Your task to perform on an android device: turn on airplane mode Image 0: 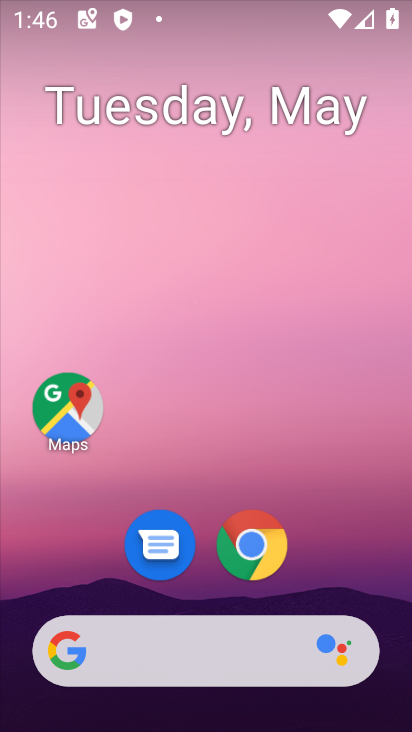
Step 0: drag from (401, 596) to (320, 89)
Your task to perform on an android device: turn on airplane mode Image 1: 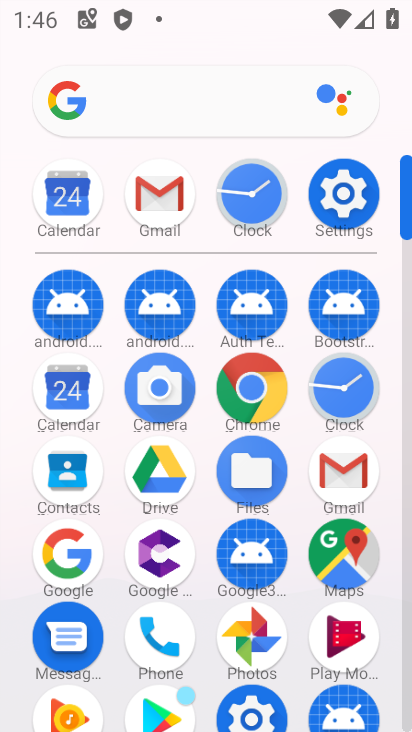
Step 1: click (407, 685)
Your task to perform on an android device: turn on airplane mode Image 2: 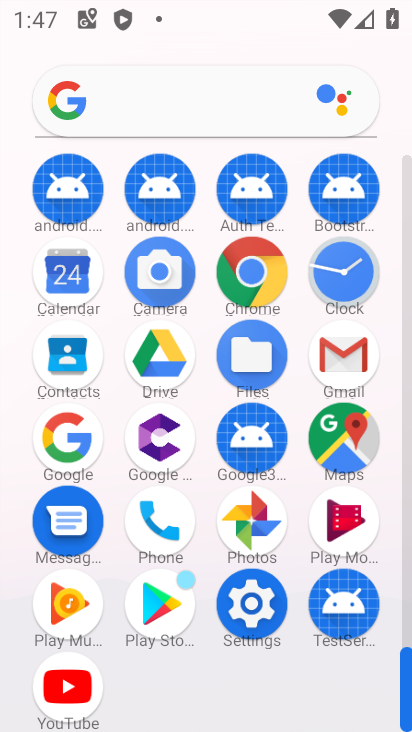
Step 2: click (253, 602)
Your task to perform on an android device: turn on airplane mode Image 3: 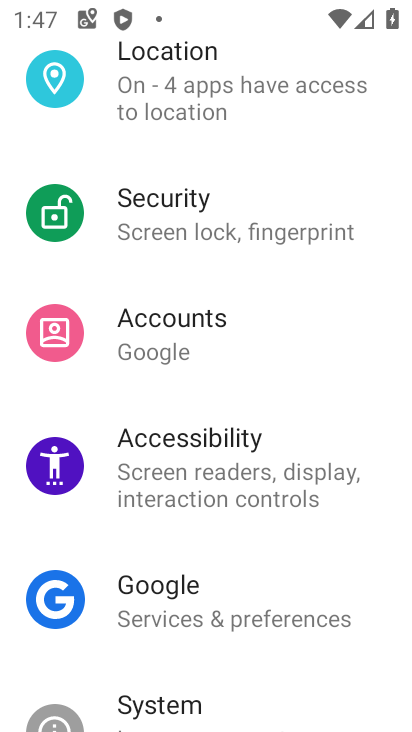
Step 3: drag from (354, 102) to (292, 636)
Your task to perform on an android device: turn on airplane mode Image 4: 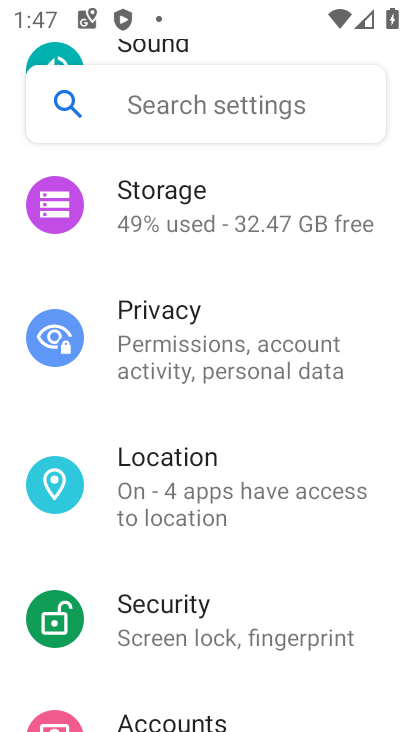
Step 4: drag from (350, 157) to (335, 463)
Your task to perform on an android device: turn on airplane mode Image 5: 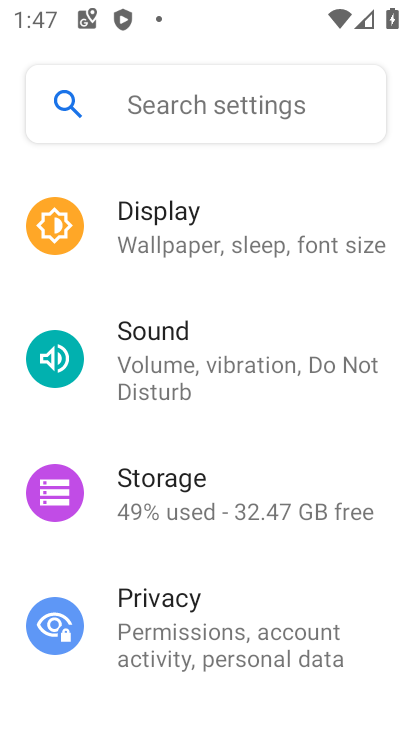
Step 5: drag from (318, 185) to (256, 596)
Your task to perform on an android device: turn on airplane mode Image 6: 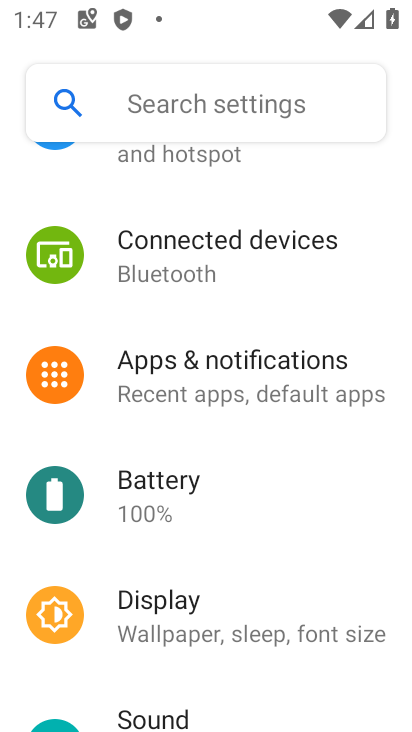
Step 6: drag from (331, 174) to (325, 466)
Your task to perform on an android device: turn on airplane mode Image 7: 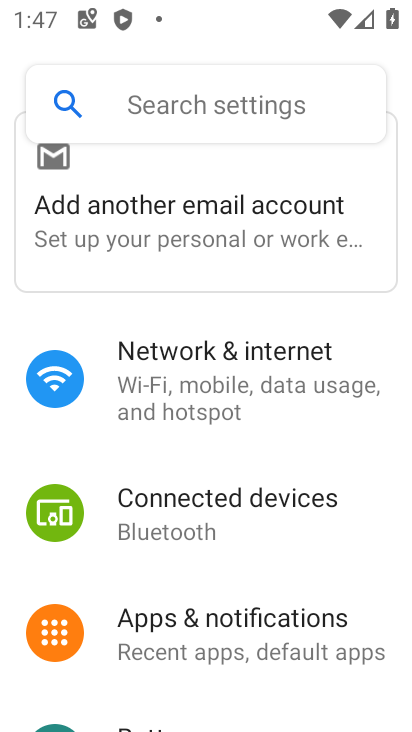
Step 7: click (178, 364)
Your task to perform on an android device: turn on airplane mode Image 8: 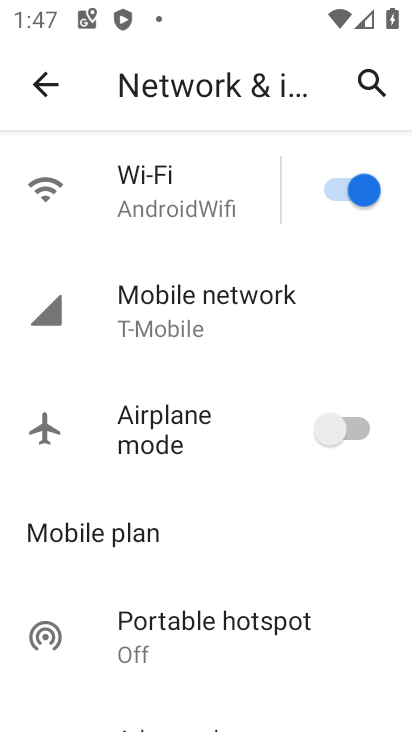
Step 8: click (371, 429)
Your task to perform on an android device: turn on airplane mode Image 9: 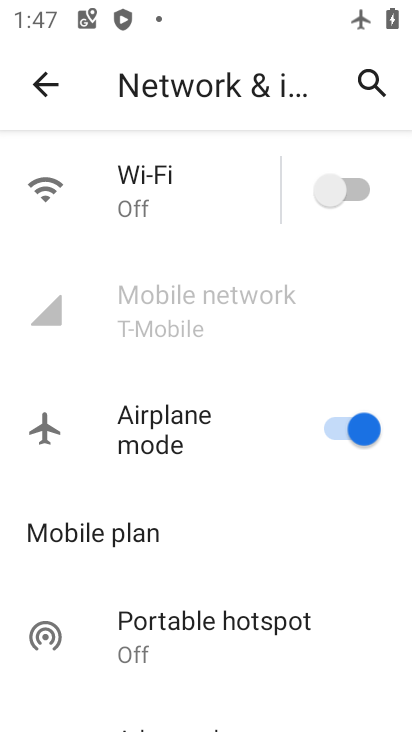
Step 9: task complete